Your task to perform on an android device: Open battery settings Image 0: 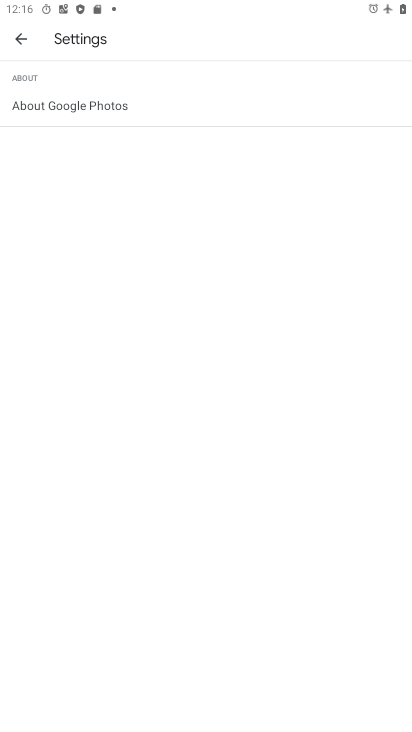
Step 0: press home button
Your task to perform on an android device: Open battery settings Image 1: 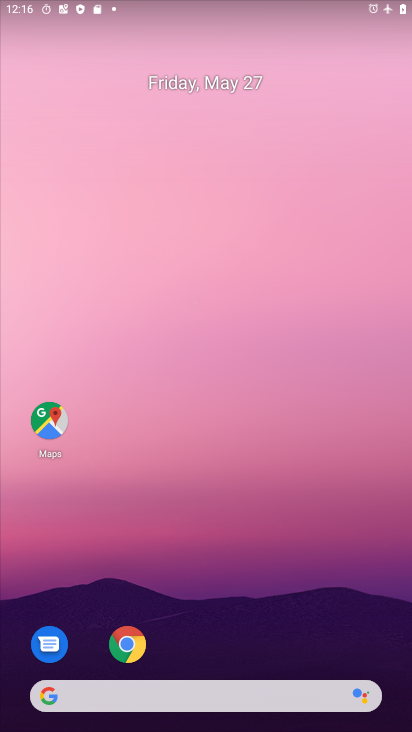
Step 1: drag from (202, 650) to (228, 256)
Your task to perform on an android device: Open battery settings Image 2: 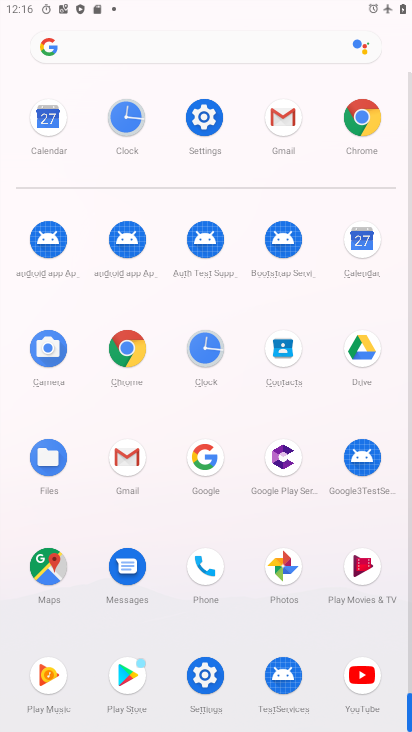
Step 2: click (209, 135)
Your task to perform on an android device: Open battery settings Image 3: 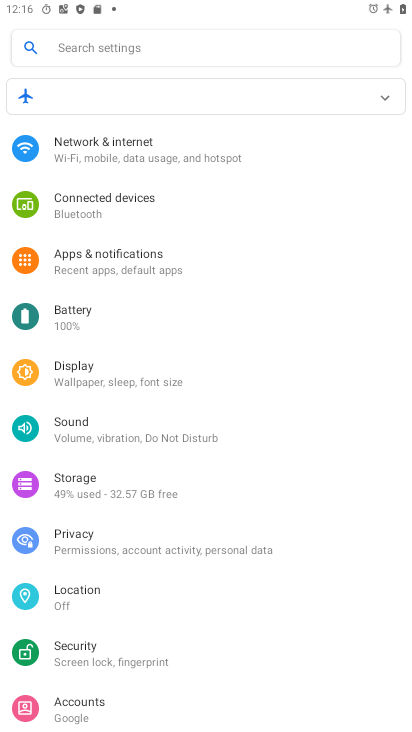
Step 3: click (101, 320)
Your task to perform on an android device: Open battery settings Image 4: 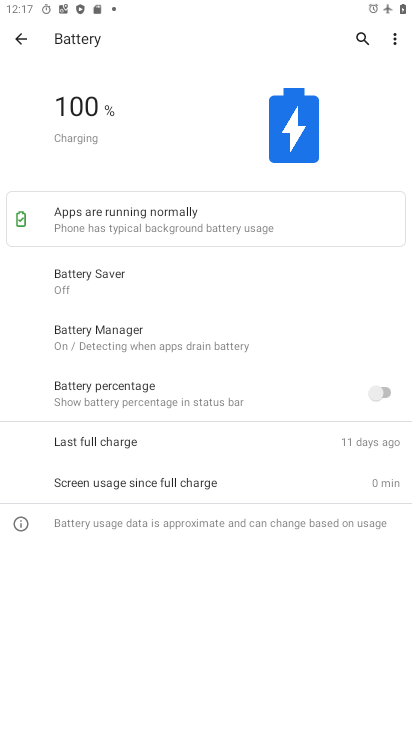
Step 4: task complete